Your task to perform on an android device: change notification settings in the gmail app Image 0: 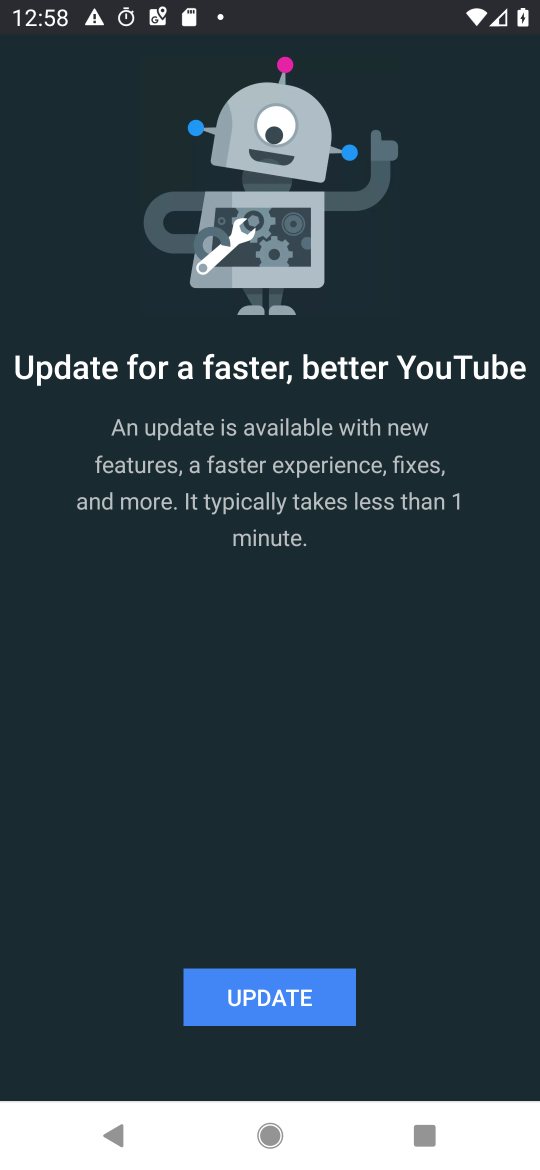
Step 0: press home button
Your task to perform on an android device: change notification settings in the gmail app Image 1: 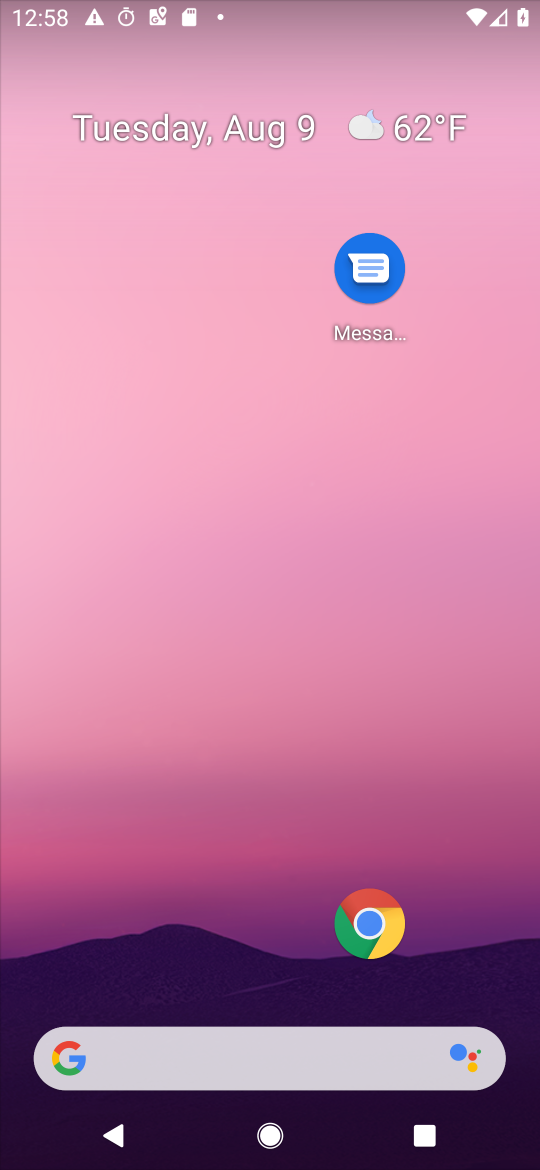
Step 1: task complete